Your task to perform on an android device: Add dell alienware to the cart on bestbuy.com, then select checkout. Image 0: 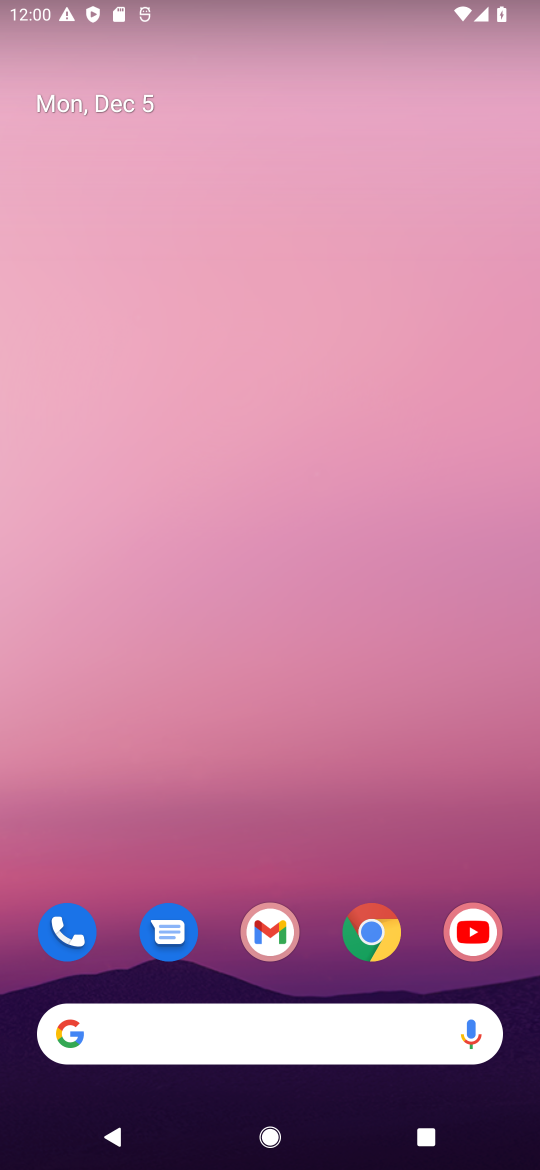
Step 0: click (361, 944)
Your task to perform on an android device: Add dell alienware to the cart on bestbuy.com, then select checkout. Image 1: 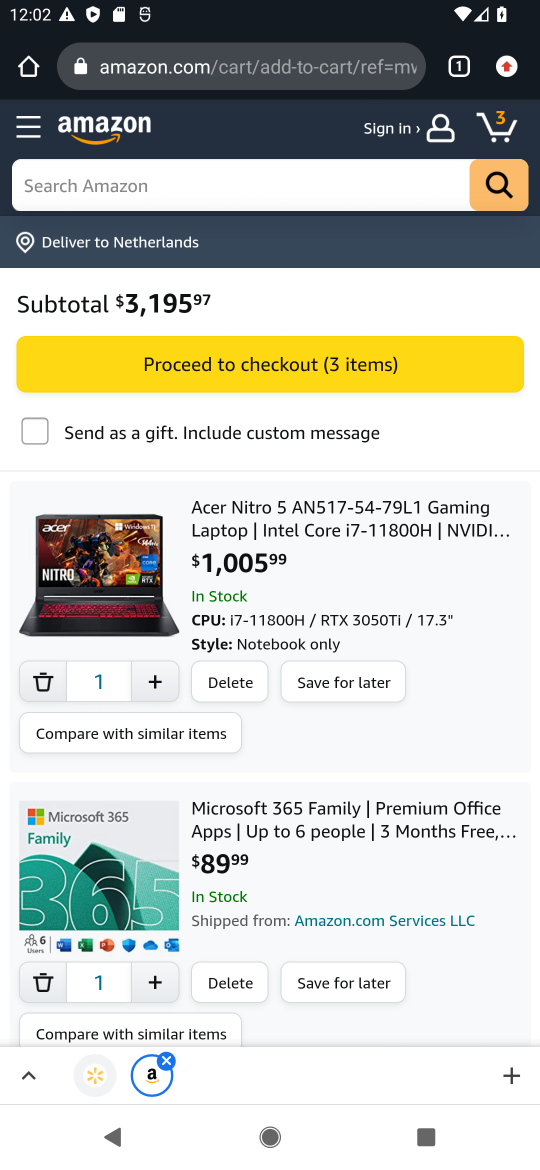
Step 1: click (218, 77)
Your task to perform on an android device: Add dell alienware to the cart on bestbuy.com, then select checkout. Image 2: 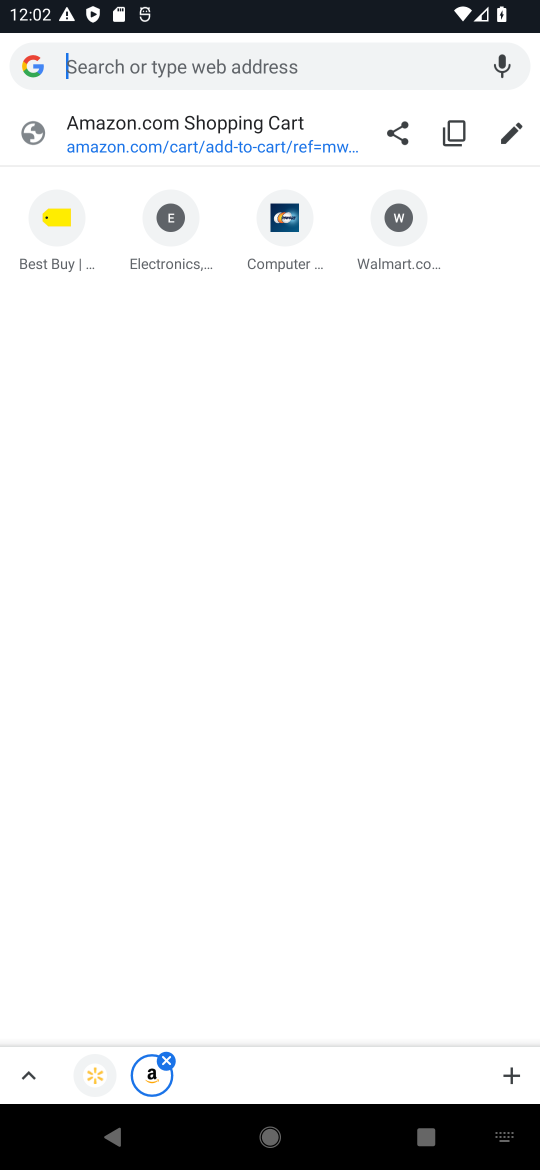
Step 2: click (37, 211)
Your task to perform on an android device: Add dell alienware to the cart on bestbuy.com, then select checkout. Image 3: 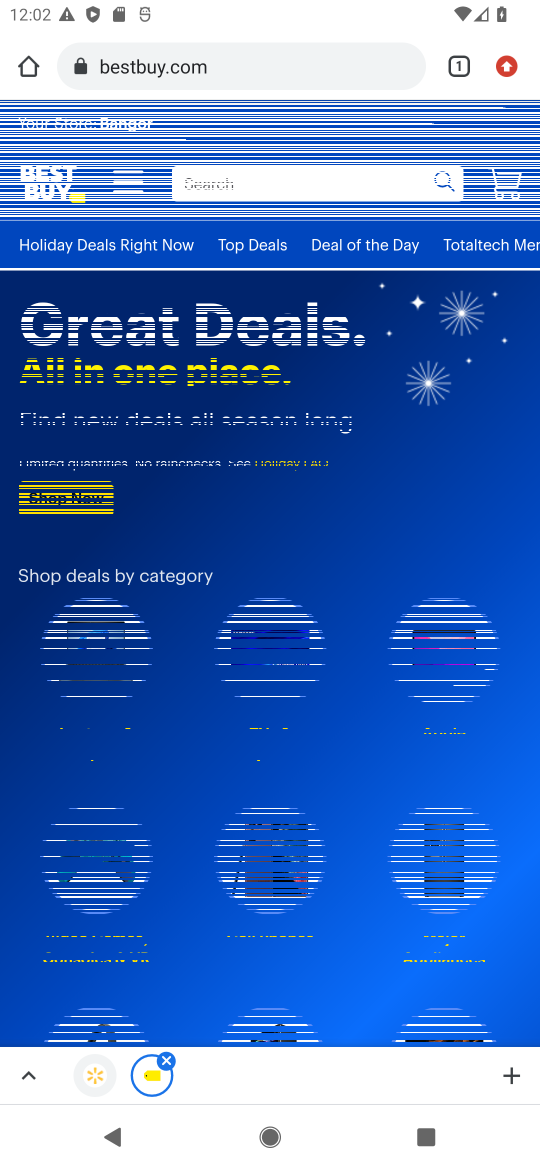
Step 3: click (292, 184)
Your task to perform on an android device: Add dell alienware to the cart on bestbuy.com, then select checkout. Image 4: 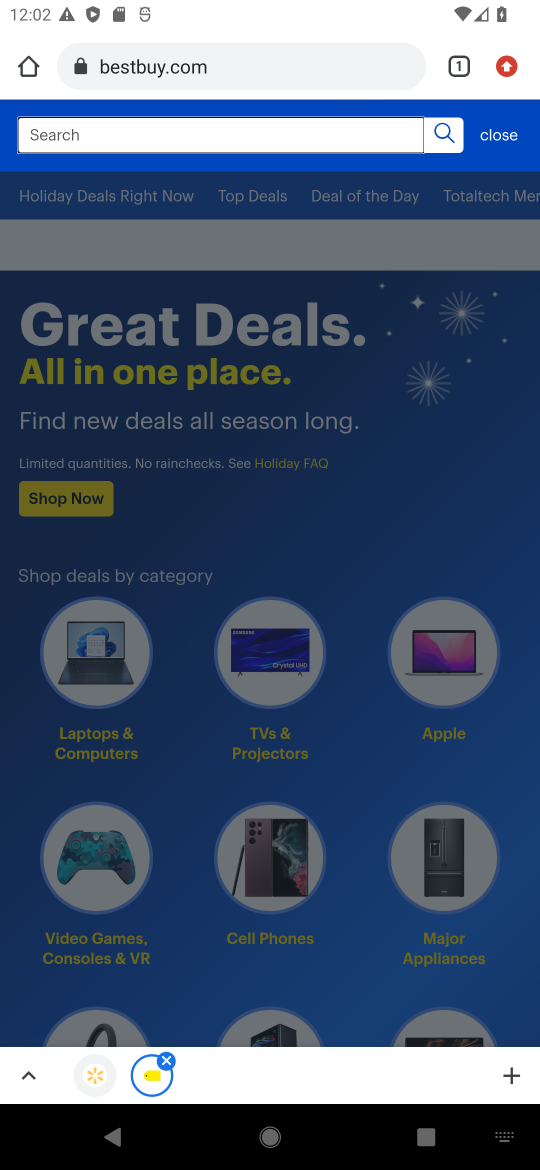
Step 4: type "dell alienware"
Your task to perform on an android device: Add dell alienware to the cart on bestbuy.com, then select checkout. Image 5: 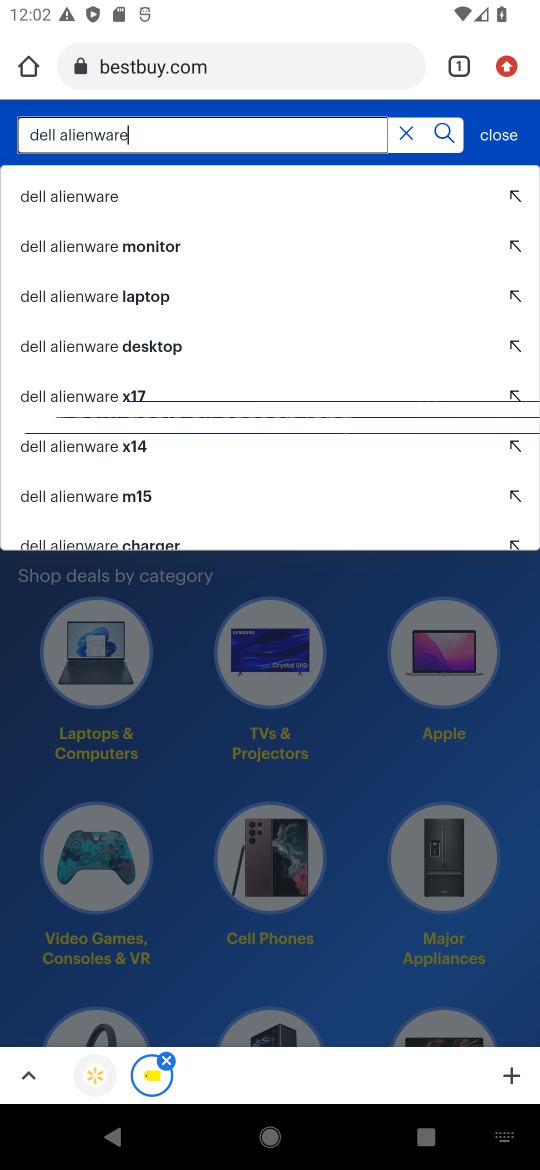
Step 5: click (110, 194)
Your task to perform on an android device: Add dell alienware to the cart on bestbuy.com, then select checkout. Image 6: 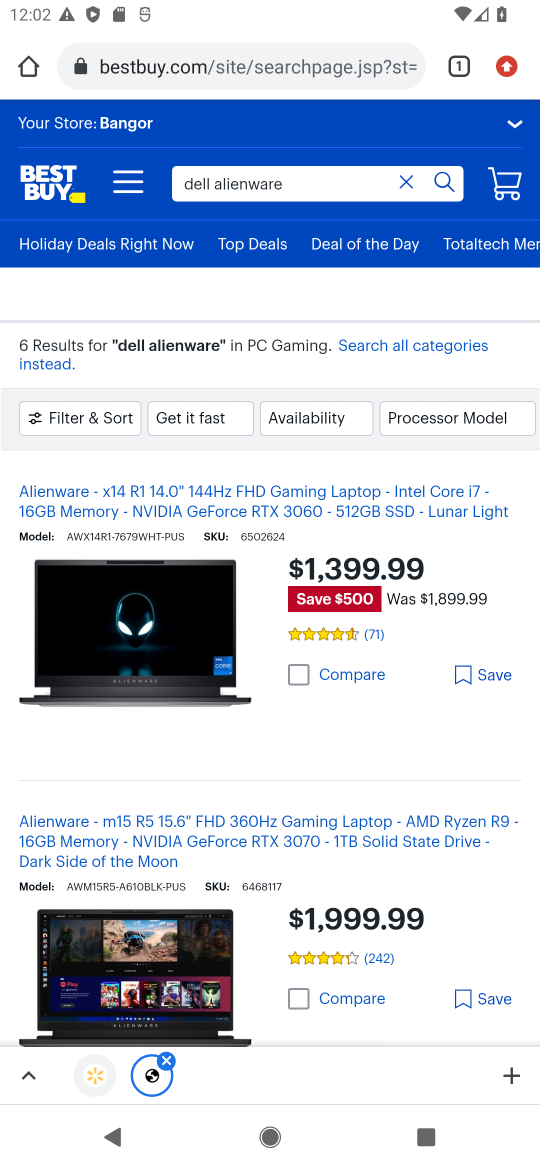
Step 6: click (161, 637)
Your task to perform on an android device: Add dell alienware to the cart on bestbuy.com, then select checkout. Image 7: 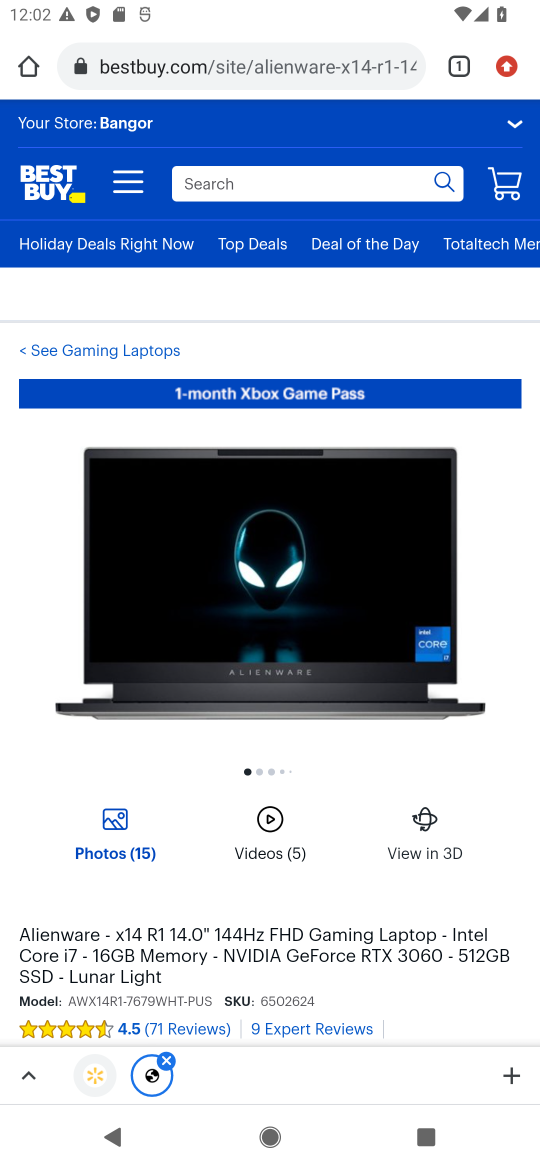
Step 7: drag from (357, 982) to (293, 342)
Your task to perform on an android device: Add dell alienware to the cart on bestbuy.com, then select checkout. Image 8: 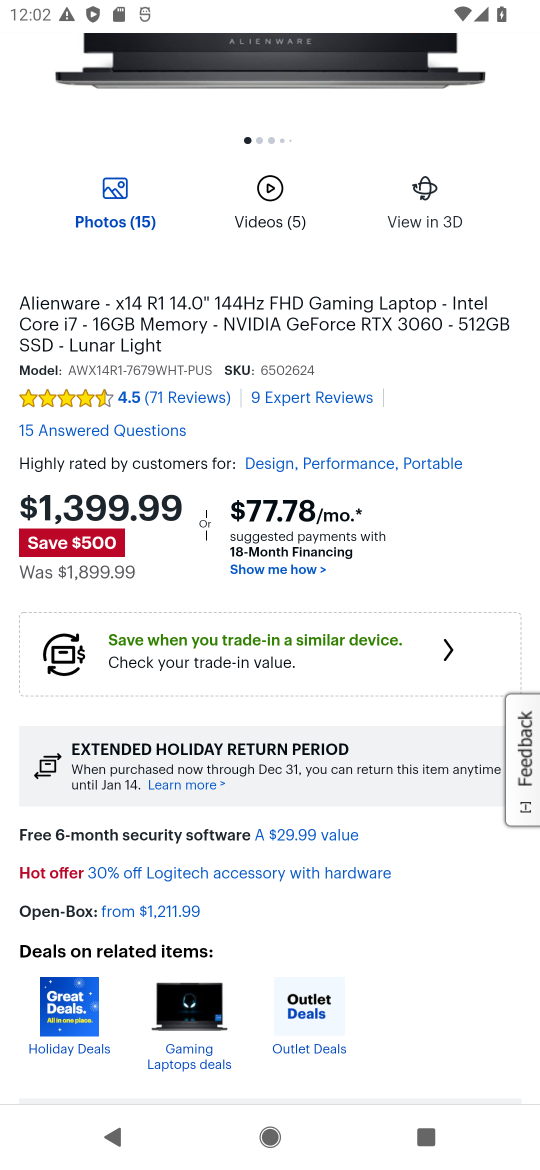
Step 8: drag from (276, 911) to (278, 506)
Your task to perform on an android device: Add dell alienware to the cart on bestbuy.com, then select checkout. Image 9: 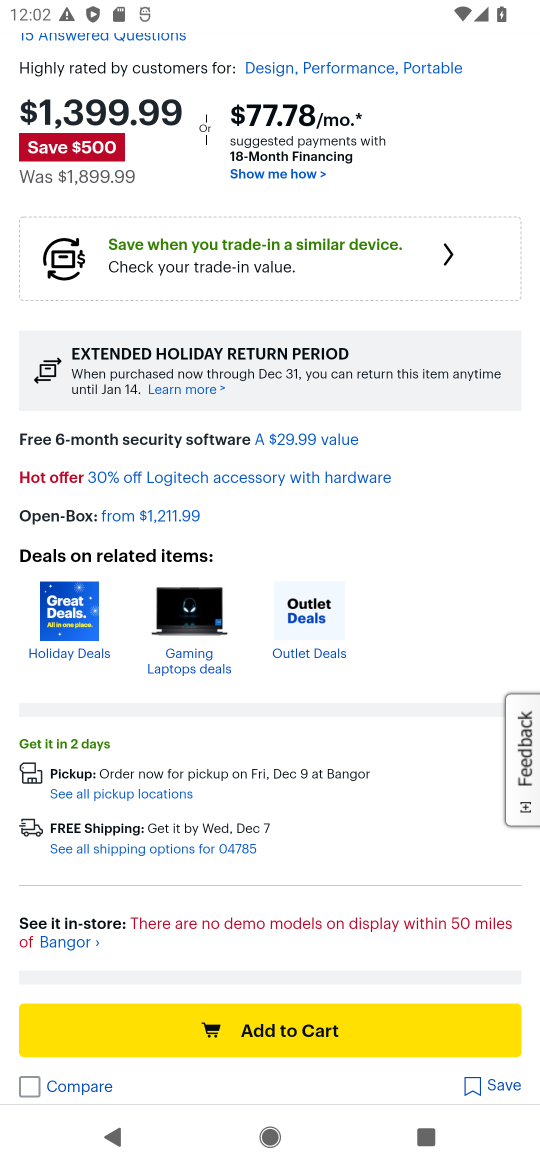
Step 9: click (247, 1034)
Your task to perform on an android device: Add dell alienware to the cart on bestbuy.com, then select checkout. Image 10: 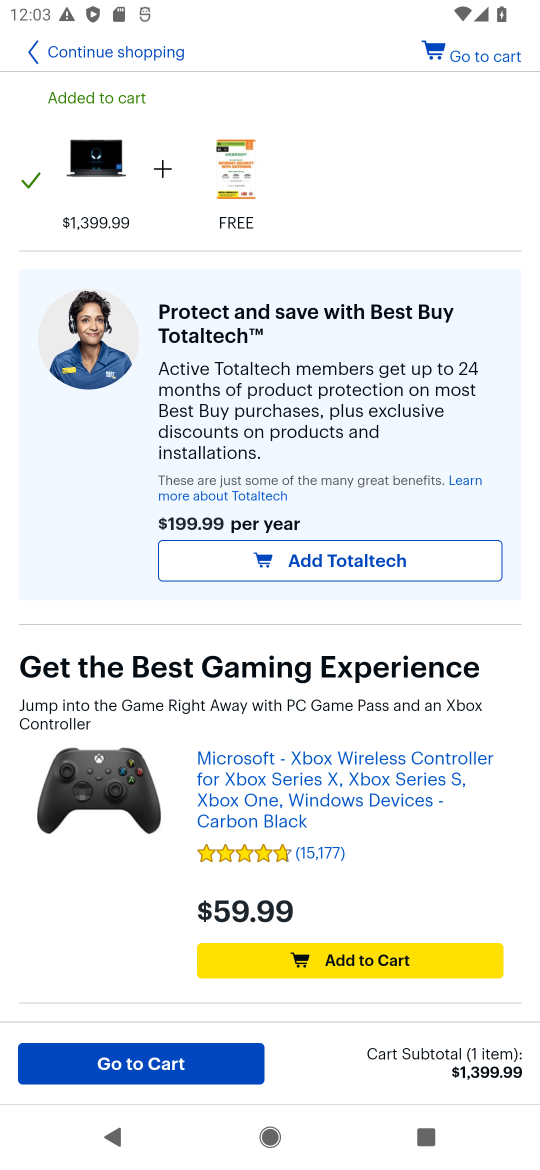
Step 10: task complete